Your task to perform on an android device: check google app version Image 0: 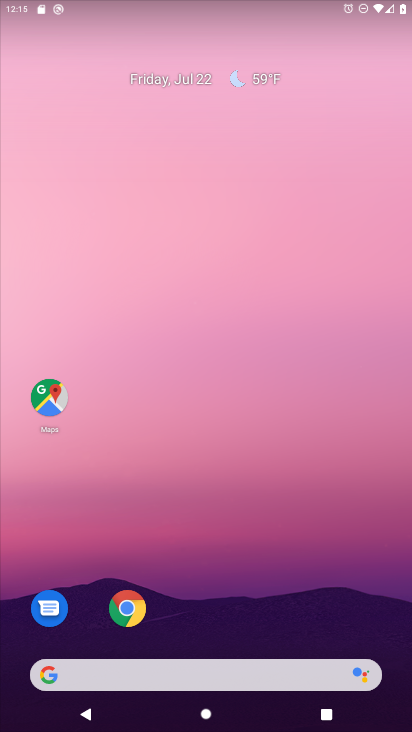
Step 0: drag from (344, 575) to (216, 30)
Your task to perform on an android device: check google app version Image 1: 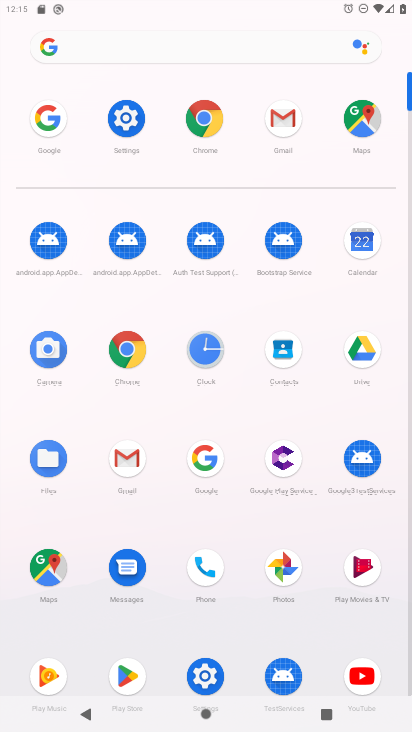
Step 1: click (192, 458)
Your task to perform on an android device: check google app version Image 2: 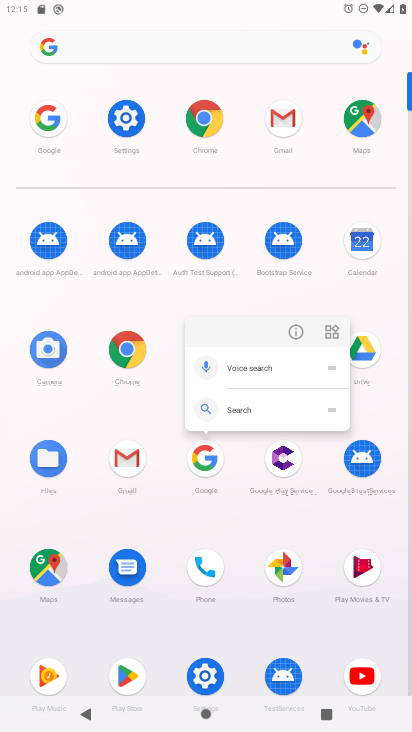
Step 2: click (293, 333)
Your task to perform on an android device: check google app version Image 3: 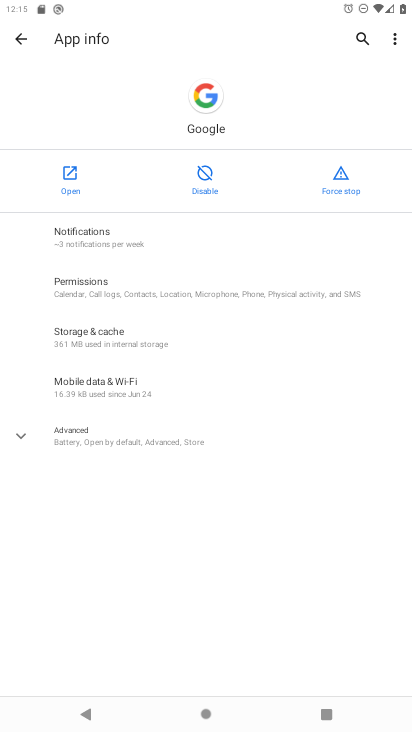
Step 3: click (109, 430)
Your task to perform on an android device: check google app version Image 4: 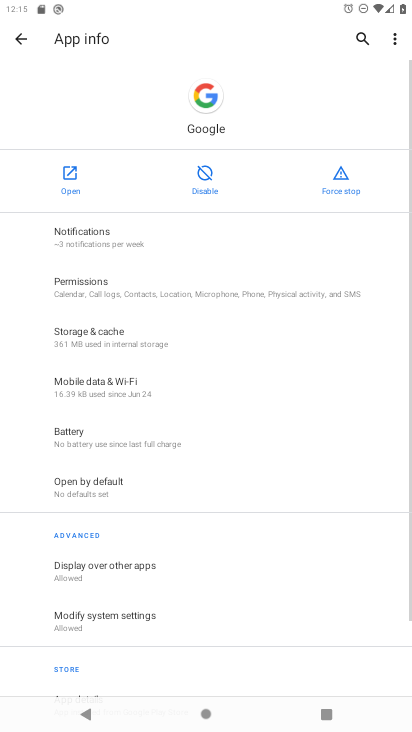
Step 4: task complete